Your task to perform on an android device: add a label to a message in the gmail app Image 0: 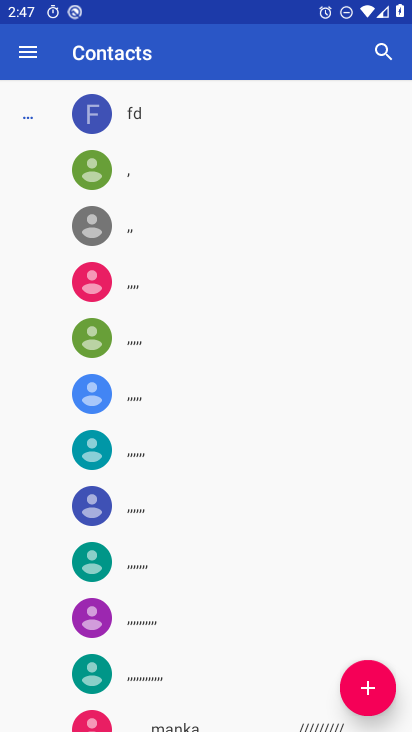
Step 0: press home button
Your task to perform on an android device: add a label to a message in the gmail app Image 1: 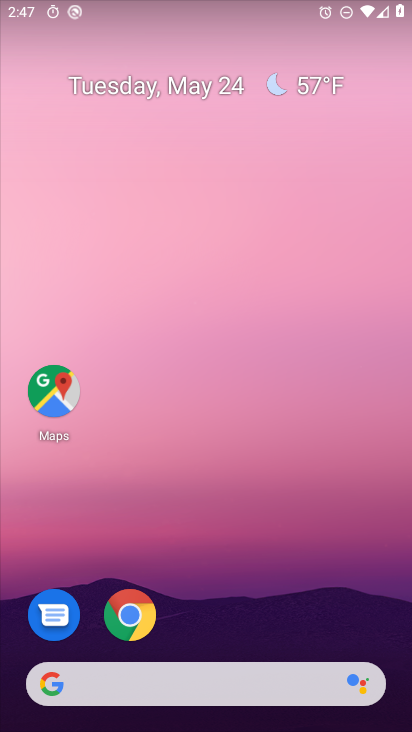
Step 1: drag from (190, 663) to (188, 225)
Your task to perform on an android device: add a label to a message in the gmail app Image 2: 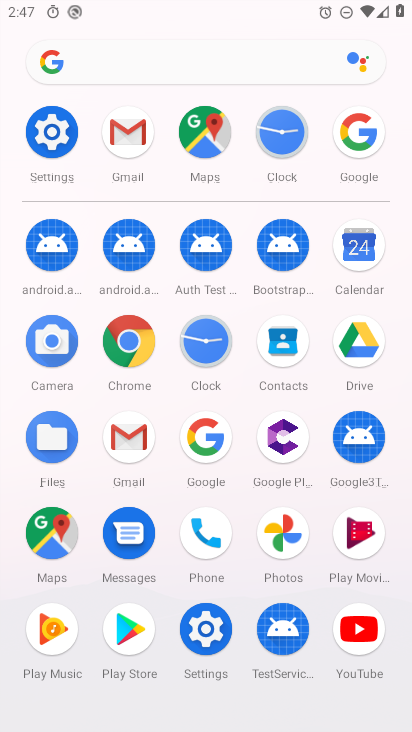
Step 2: click (140, 436)
Your task to perform on an android device: add a label to a message in the gmail app Image 3: 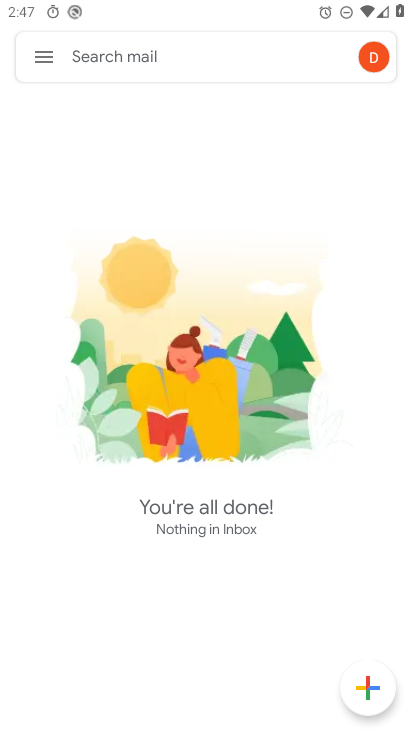
Step 3: click (49, 57)
Your task to perform on an android device: add a label to a message in the gmail app Image 4: 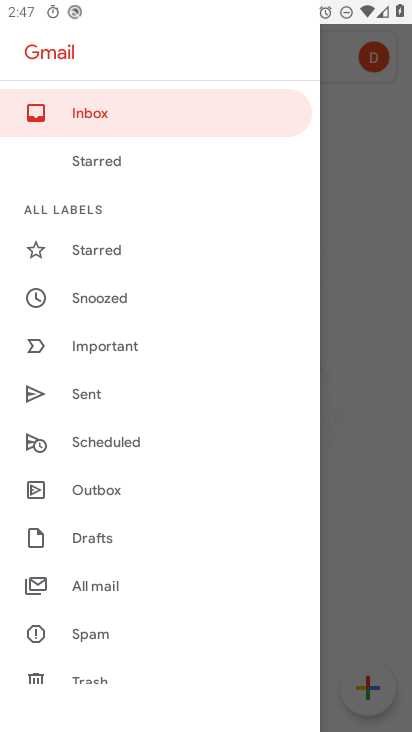
Step 4: click (369, 359)
Your task to perform on an android device: add a label to a message in the gmail app Image 5: 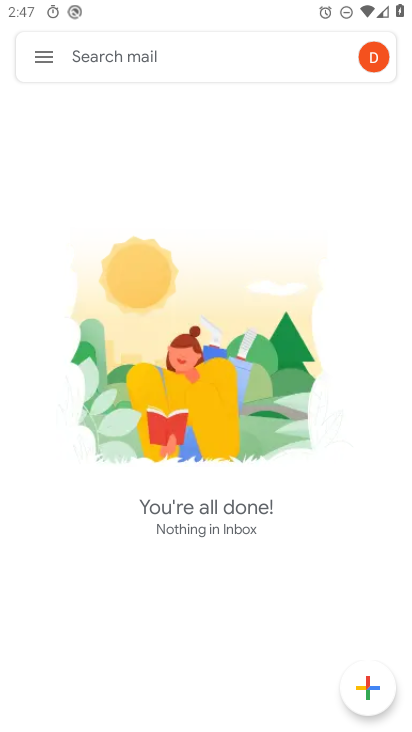
Step 5: task complete